Your task to perform on an android device: Go to CNN.com Image 0: 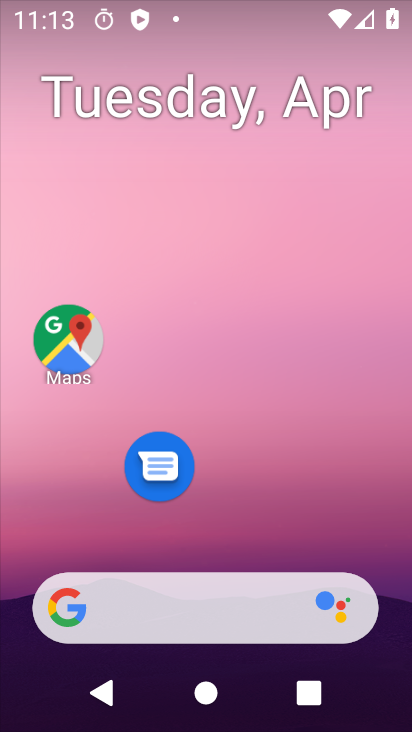
Step 0: drag from (263, 514) to (300, 181)
Your task to perform on an android device: Go to CNN.com Image 1: 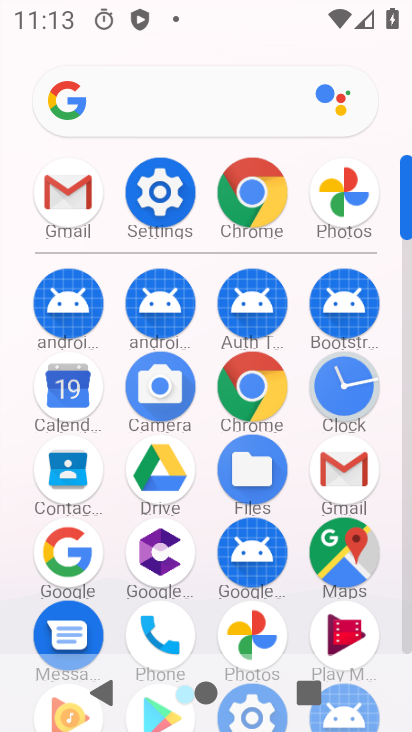
Step 1: click (257, 210)
Your task to perform on an android device: Go to CNN.com Image 2: 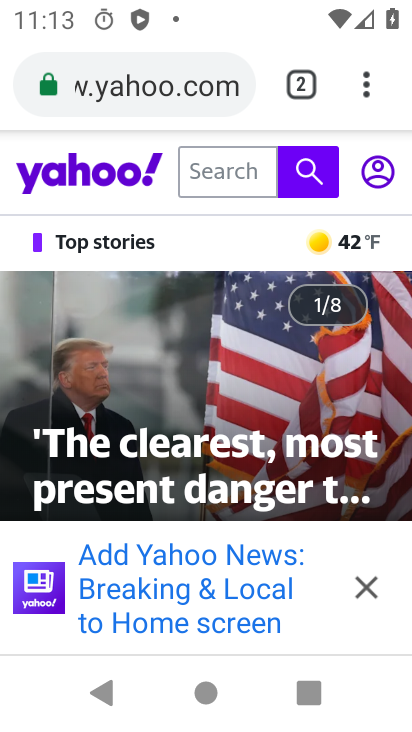
Step 2: click (172, 94)
Your task to perform on an android device: Go to CNN.com Image 3: 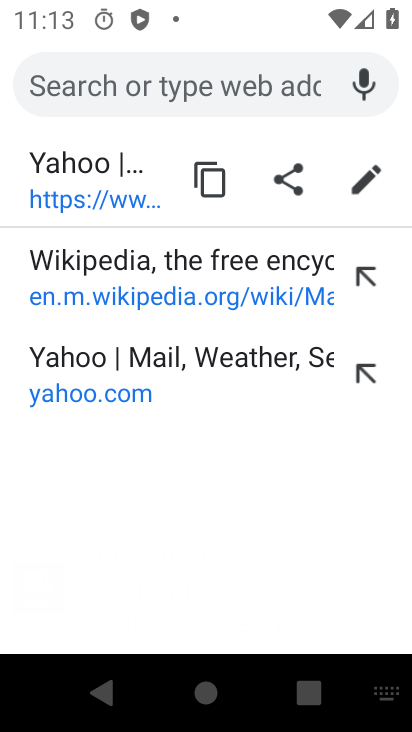
Step 3: task complete